Your task to perform on an android device: visit the assistant section in the google photos Image 0: 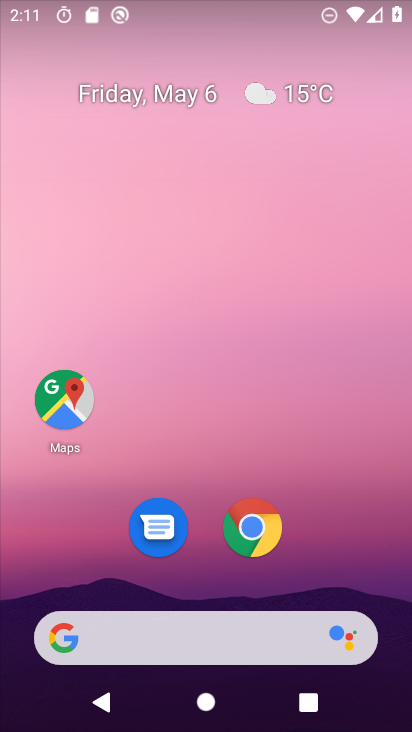
Step 0: drag from (254, 420) to (79, 60)
Your task to perform on an android device: visit the assistant section in the google photos Image 1: 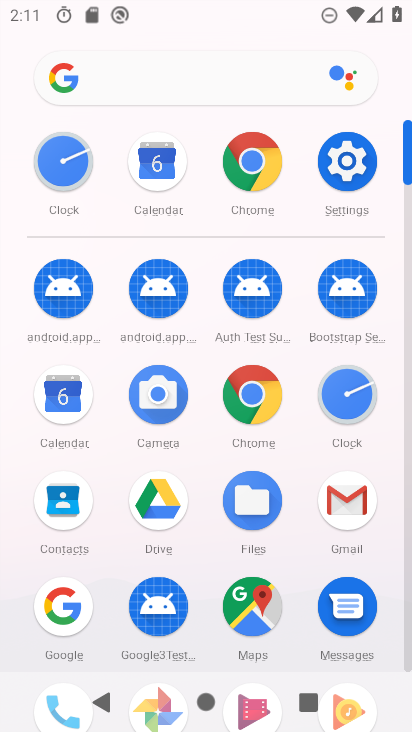
Step 1: drag from (214, 575) to (209, 59)
Your task to perform on an android device: visit the assistant section in the google photos Image 2: 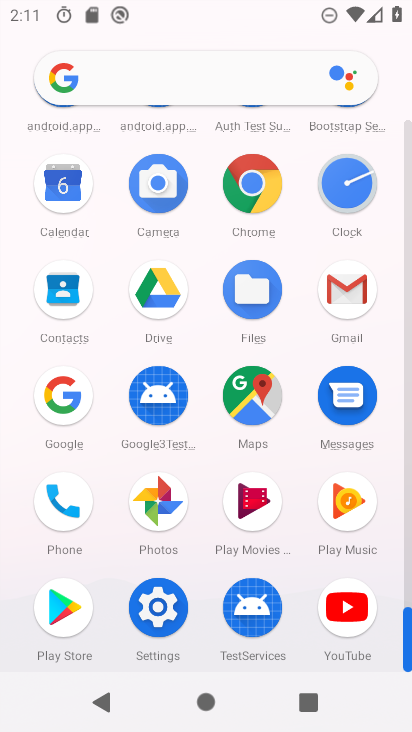
Step 2: click (162, 490)
Your task to perform on an android device: visit the assistant section in the google photos Image 3: 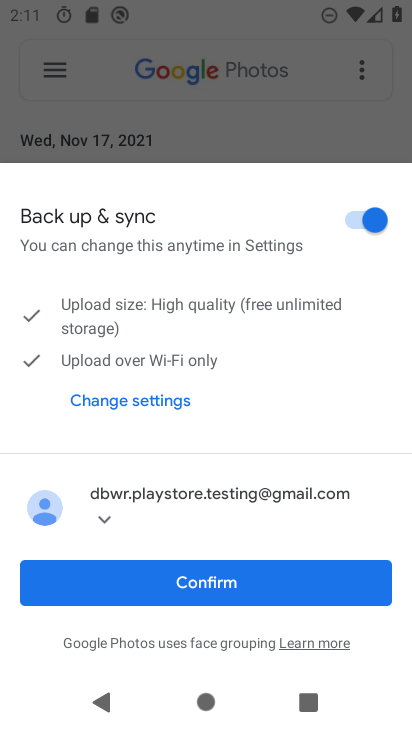
Step 3: press back button
Your task to perform on an android device: visit the assistant section in the google photos Image 4: 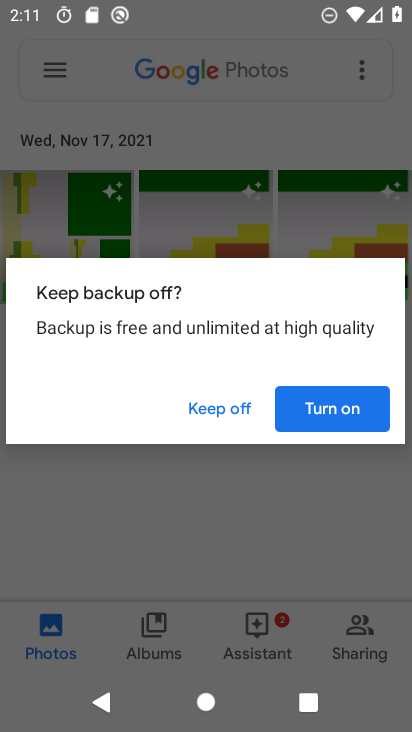
Step 4: click (201, 405)
Your task to perform on an android device: visit the assistant section in the google photos Image 5: 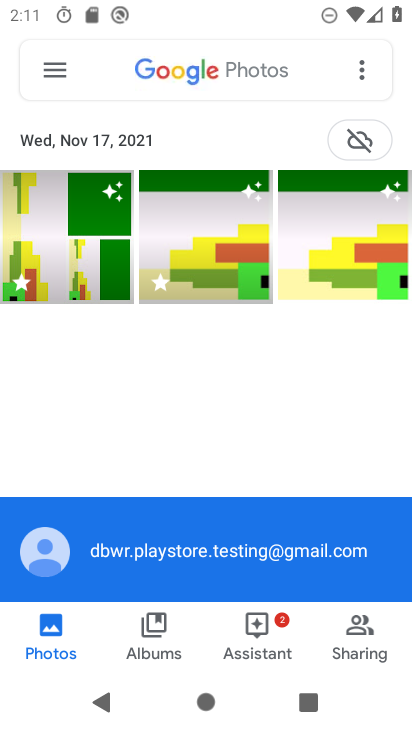
Step 5: click (263, 643)
Your task to perform on an android device: visit the assistant section in the google photos Image 6: 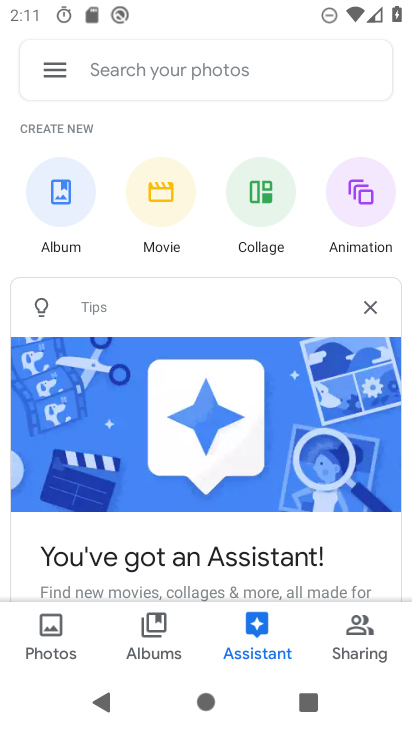
Step 6: task complete